Your task to perform on an android device: find snoozed emails in the gmail app Image 0: 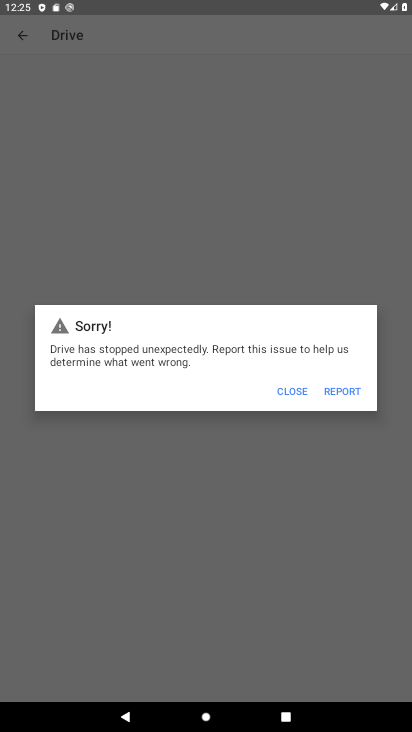
Step 0: press home button
Your task to perform on an android device: find snoozed emails in the gmail app Image 1: 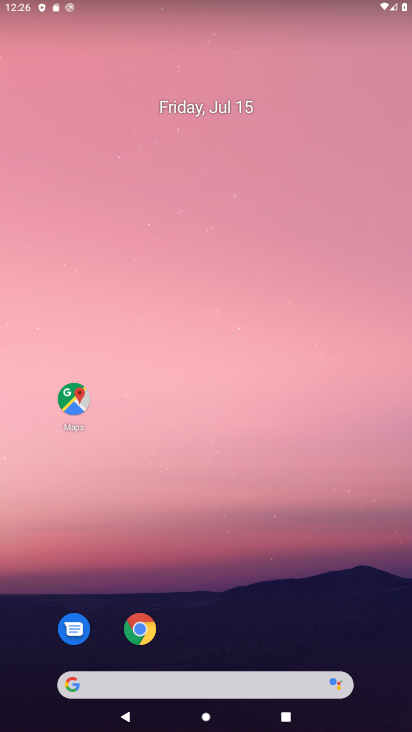
Step 1: drag from (210, 659) to (206, 218)
Your task to perform on an android device: find snoozed emails in the gmail app Image 2: 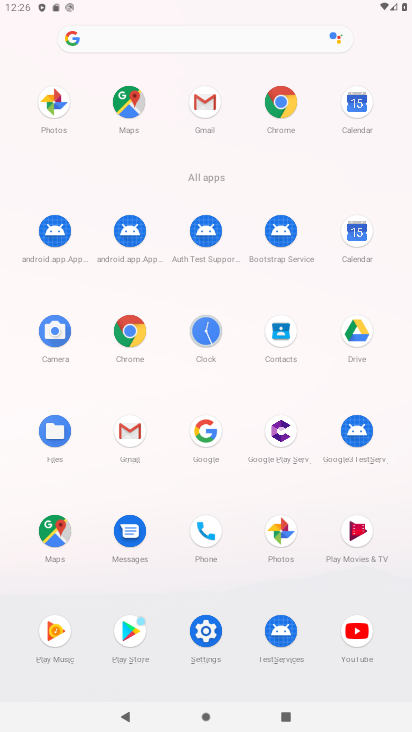
Step 2: click (125, 443)
Your task to perform on an android device: find snoozed emails in the gmail app Image 3: 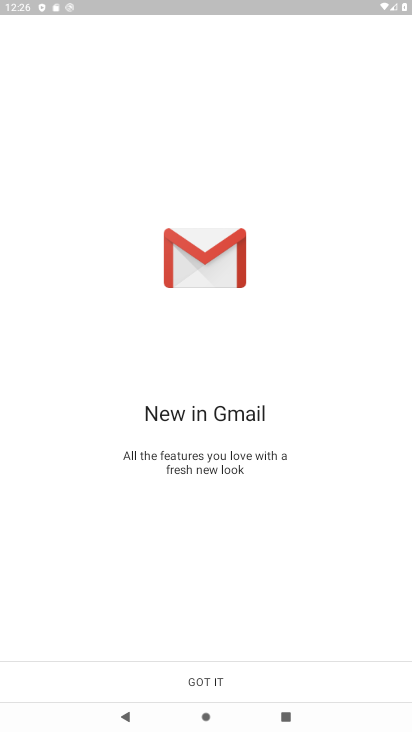
Step 3: click (231, 673)
Your task to perform on an android device: find snoozed emails in the gmail app Image 4: 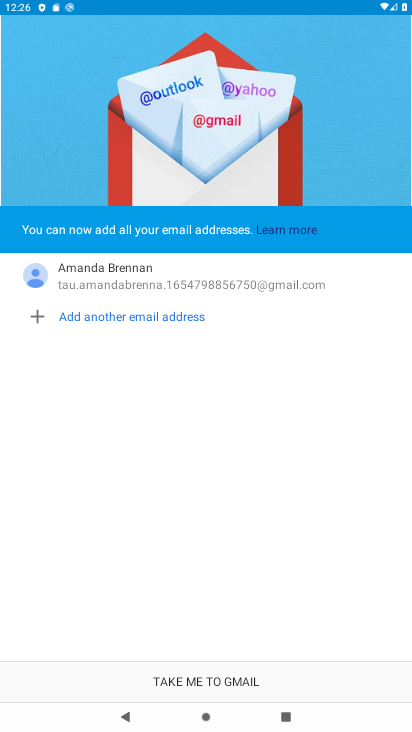
Step 4: click (237, 691)
Your task to perform on an android device: find snoozed emails in the gmail app Image 5: 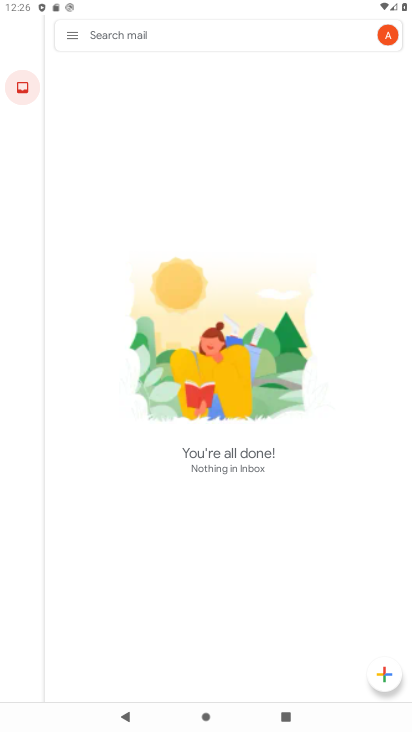
Step 5: click (67, 37)
Your task to perform on an android device: find snoozed emails in the gmail app Image 6: 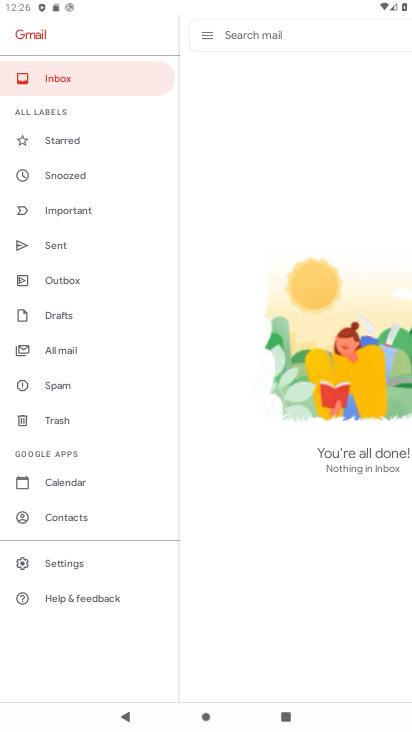
Step 6: click (91, 181)
Your task to perform on an android device: find snoozed emails in the gmail app Image 7: 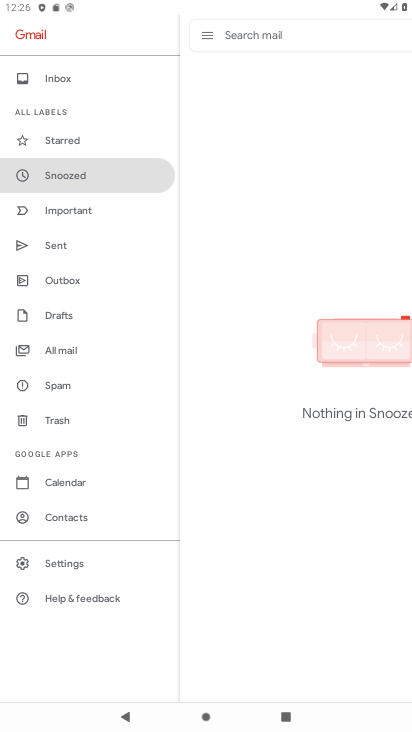
Step 7: task complete